Your task to perform on an android device: Open sound settings Image 0: 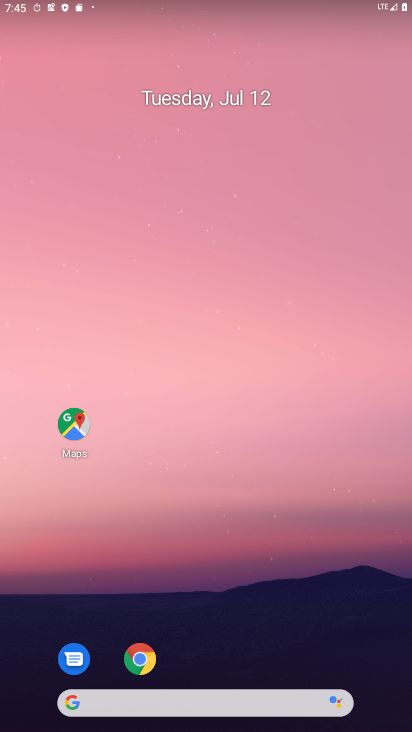
Step 0: drag from (369, 655) to (242, 32)
Your task to perform on an android device: Open sound settings Image 1: 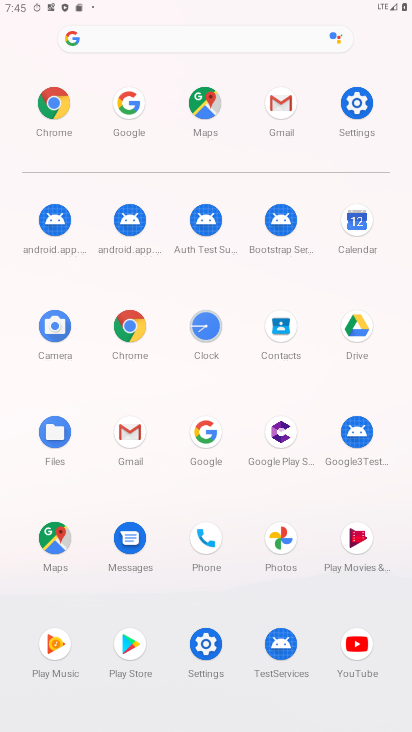
Step 1: click (194, 640)
Your task to perform on an android device: Open sound settings Image 2: 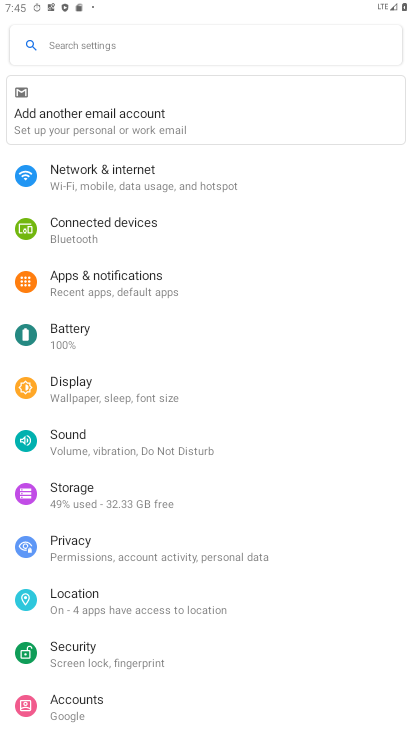
Step 2: click (62, 457)
Your task to perform on an android device: Open sound settings Image 3: 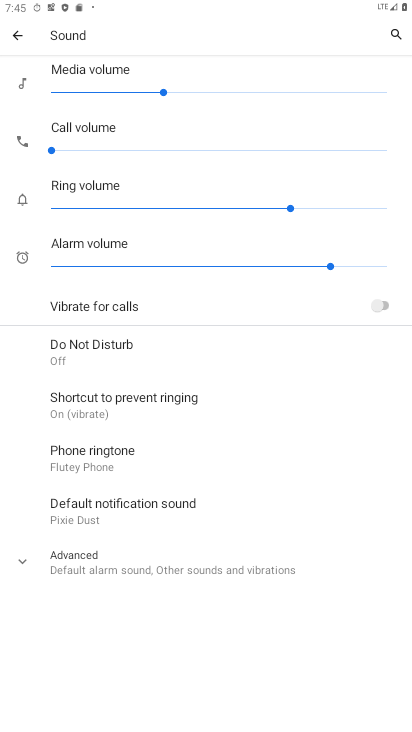
Step 3: task complete